Your task to perform on an android device: turn on data saver in the chrome app Image 0: 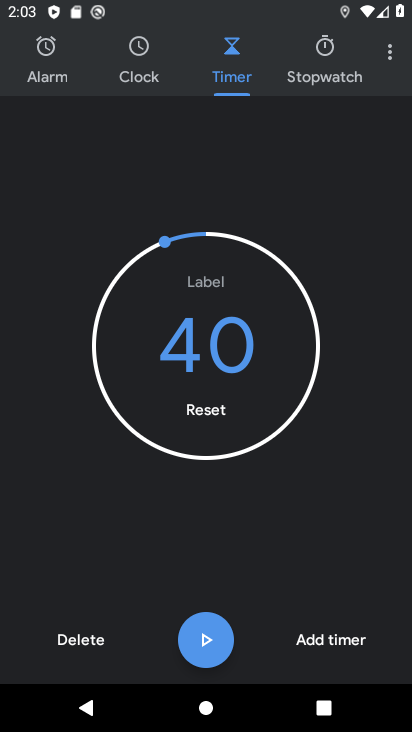
Step 0: press home button
Your task to perform on an android device: turn on data saver in the chrome app Image 1: 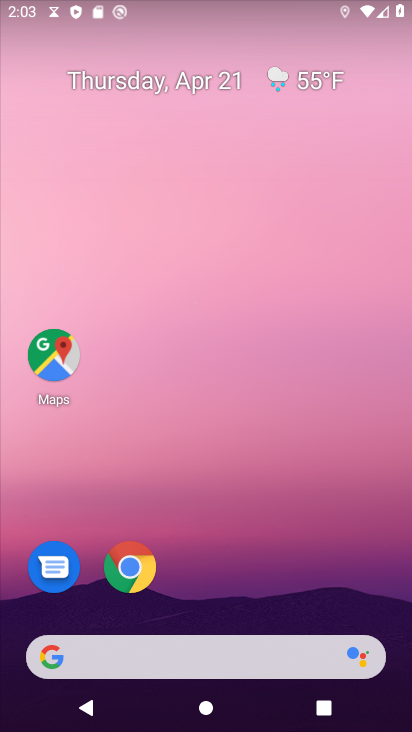
Step 1: drag from (118, 667) to (343, 77)
Your task to perform on an android device: turn on data saver in the chrome app Image 2: 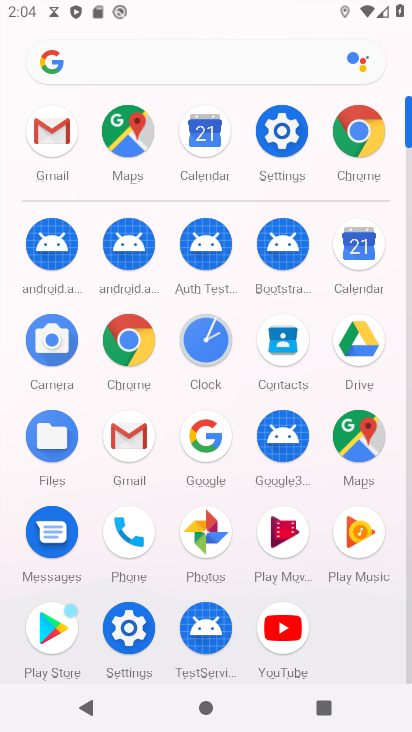
Step 2: click (361, 143)
Your task to perform on an android device: turn on data saver in the chrome app Image 3: 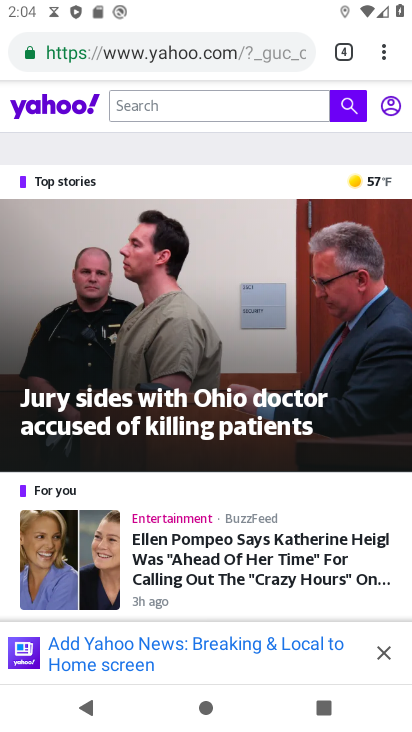
Step 3: click (376, 61)
Your task to perform on an android device: turn on data saver in the chrome app Image 4: 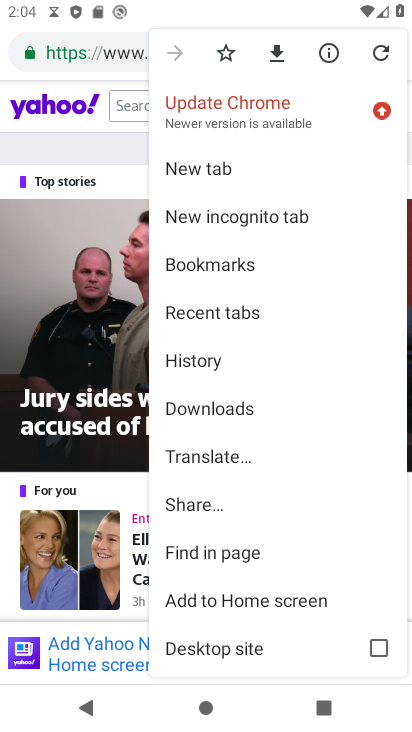
Step 4: drag from (295, 522) to (409, 106)
Your task to perform on an android device: turn on data saver in the chrome app Image 5: 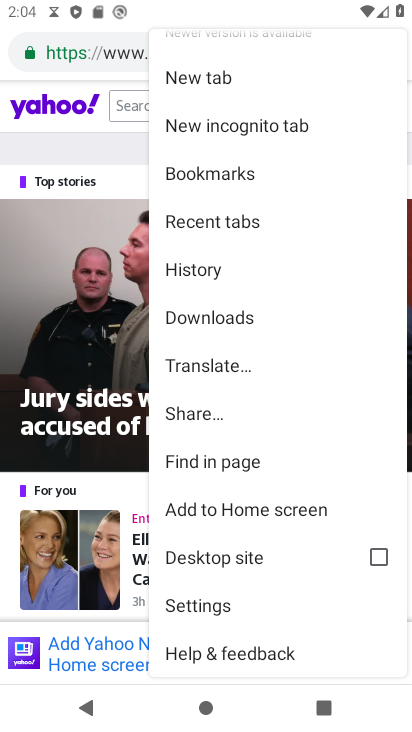
Step 5: click (189, 612)
Your task to perform on an android device: turn on data saver in the chrome app Image 6: 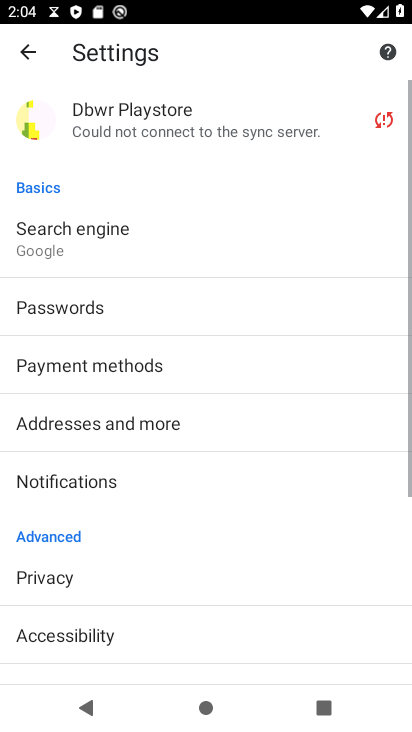
Step 6: drag from (167, 617) to (325, 186)
Your task to perform on an android device: turn on data saver in the chrome app Image 7: 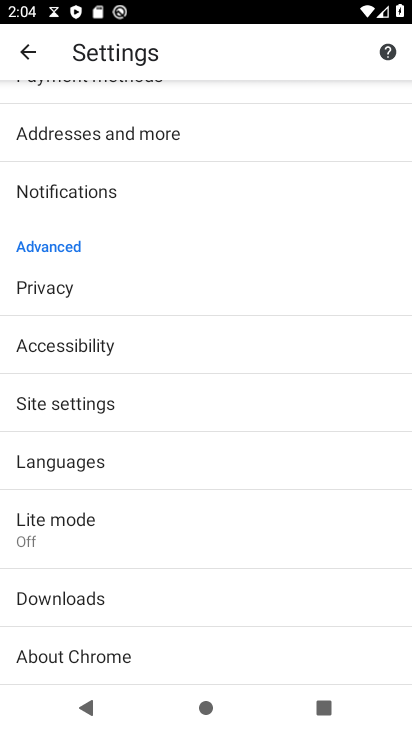
Step 7: click (84, 540)
Your task to perform on an android device: turn on data saver in the chrome app Image 8: 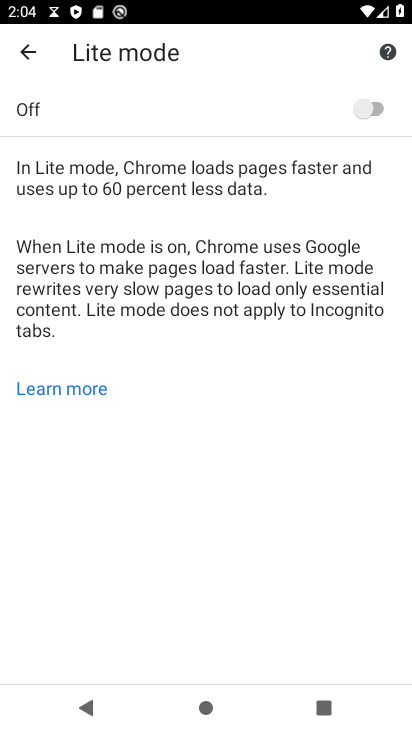
Step 8: click (374, 104)
Your task to perform on an android device: turn on data saver in the chrome app Image 9: 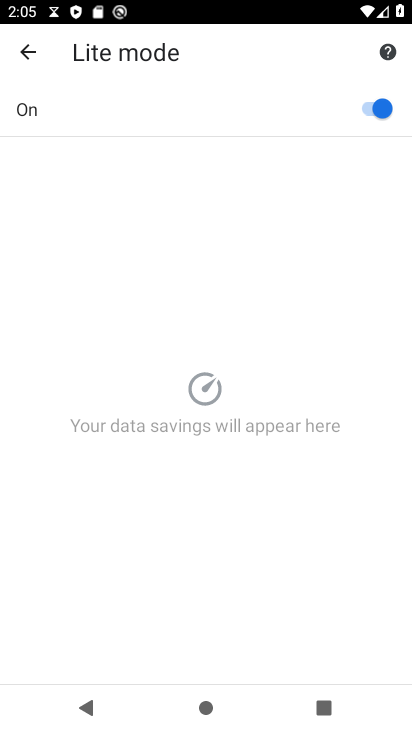
Step 9: task complete